Your task to perform on an android device: Play the last video I watched on Youtube Image 0: 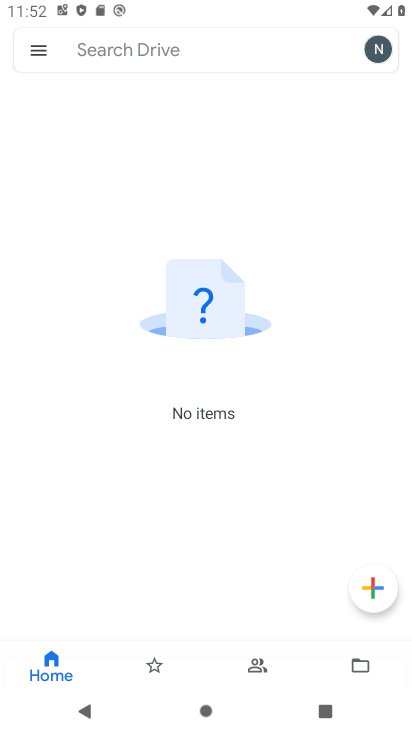
Step 0: press back button
Your task to perform on an android device: Play the last video I watched on Youtube Image 1: 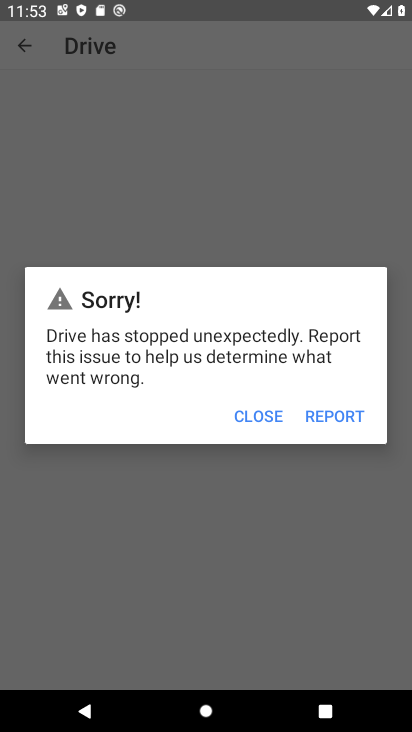
Step 1: click (263, 426)
Your task to perform on an android device: Play the last video I watched on Youtube Image 2: 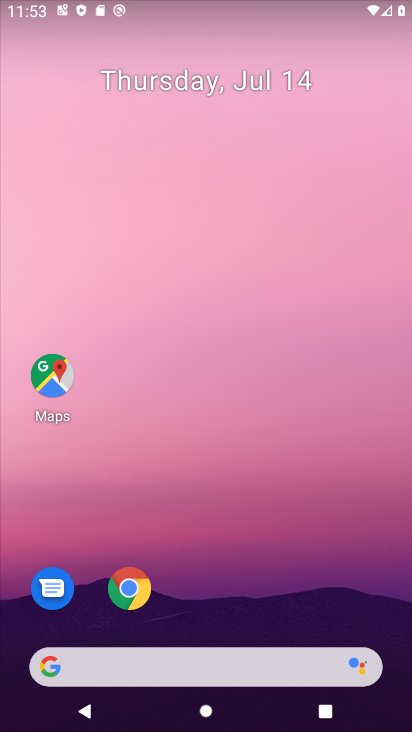
Step 2: drag from (287, 589) to (264, 14)
Your task to perform on an android device: Play the last video I watched on Youtube Image 3: 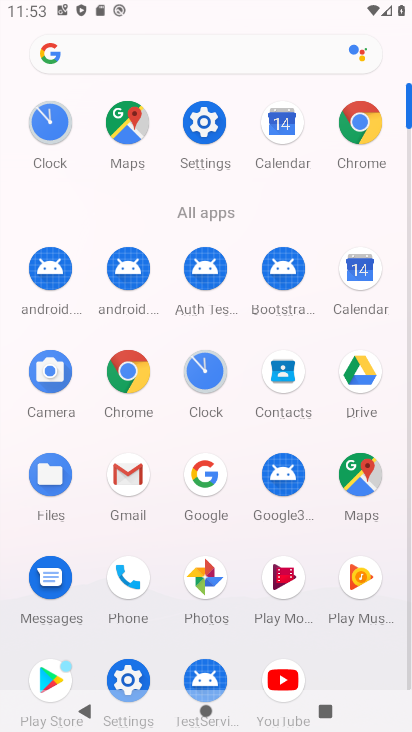
Step 3: click (276, 677)
Your task to perform on an android device: Play the last video I watched on Youtube Image 4: 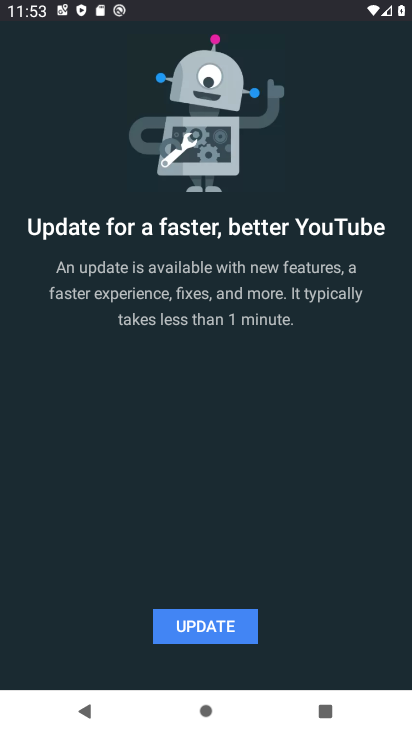
Step 4: click (208, 627)
Your task to perform on an android device: Play the last video I watched on Youtube Image 5: 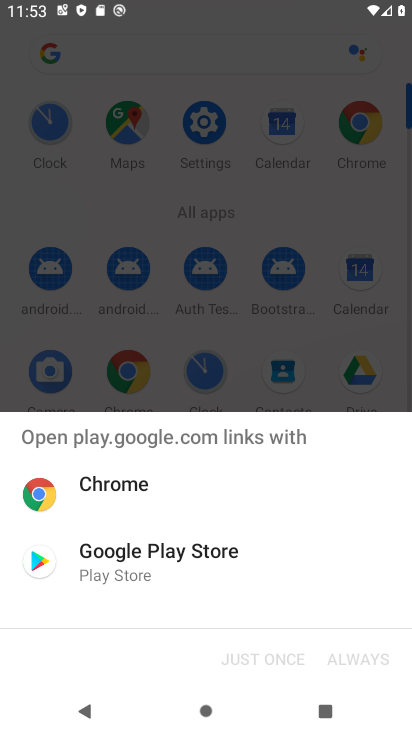
Step 5: click (57, 609)
Your task to perform on an android device: Play the last video I watched on Youtube Image 6: 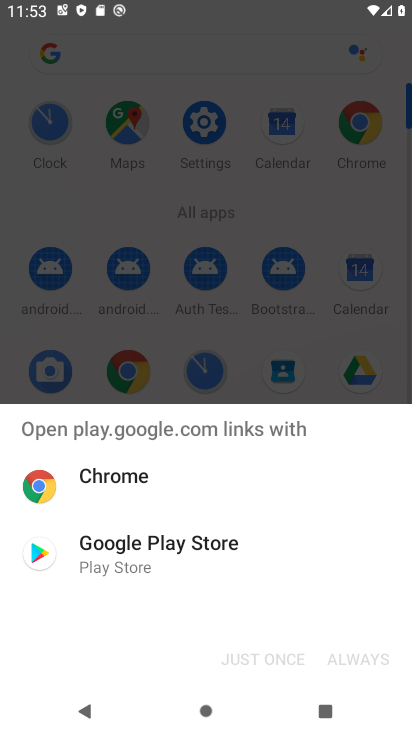
Step 6: click (156, 527)
Your task to perform on an android device: Play the last video I watched on Youtube Image 7: 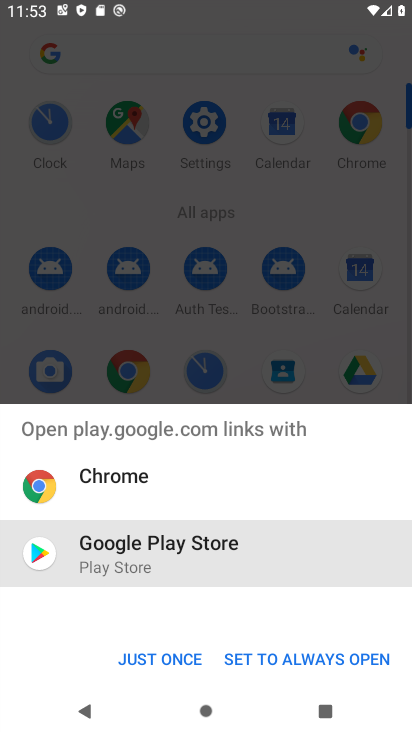
Step 7: click (157, 652)
Your task to perform on an android device: Play the last video I watched on Youtube Image 8: 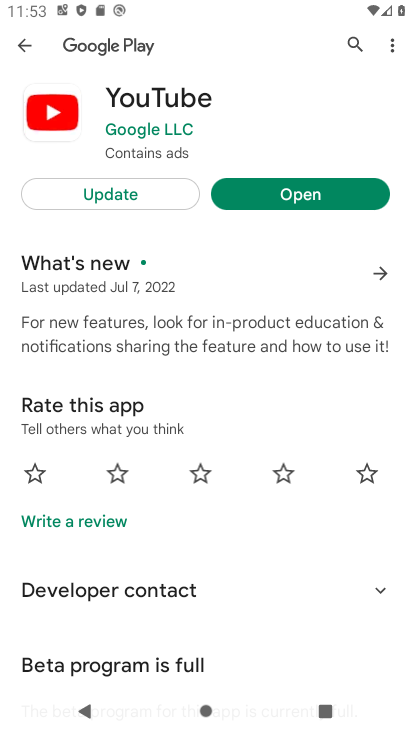
Step 8: click (134, 204)
Your task to perform on an android device: Play the last video I watched on Youtube Image 9: 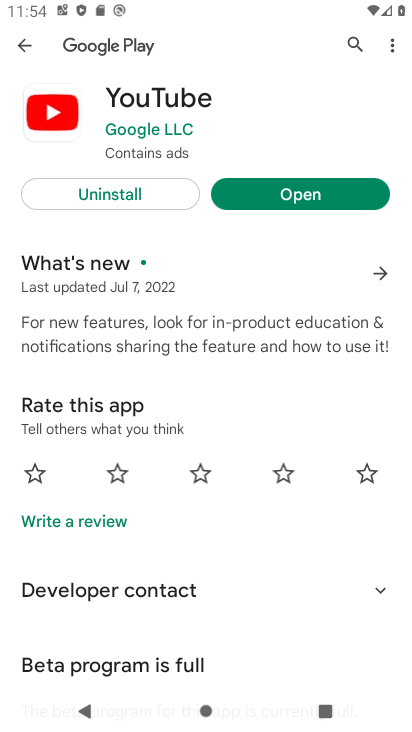
Step 9: click (278, 200)
Your task to perform on an android device: Play the last video I watched on Youtube Image 10: 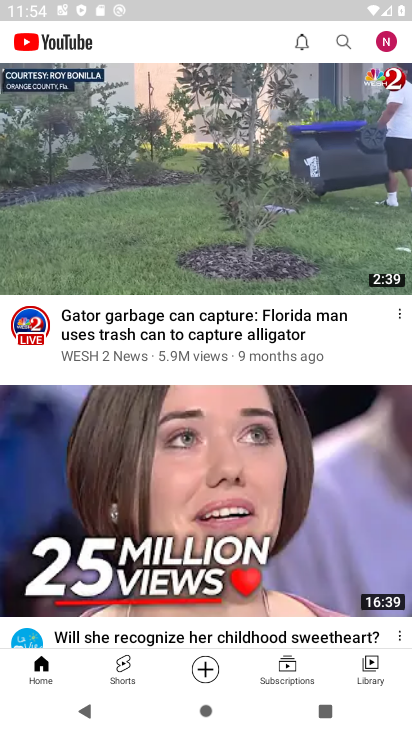
Step 10: click (373, 672)
Your task to perform on an android device: Play the last video I watched on Youtube Image 11: 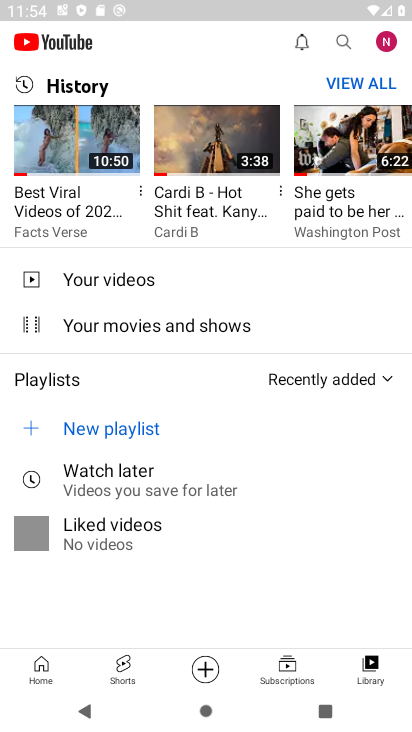
Step 11: click (60, 156)
Your task to perform on an android device: Play the last video I watched on Youtube Image 12: 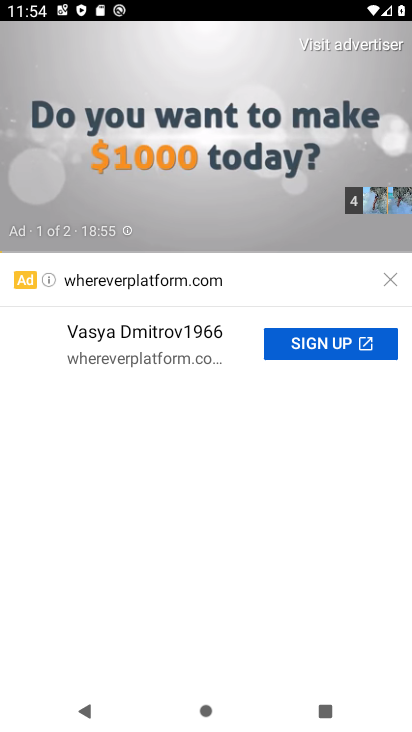
Step 12: click (192, 132)
Your task to perform on an android device: Play the last video I watched on Youtube Image 13: 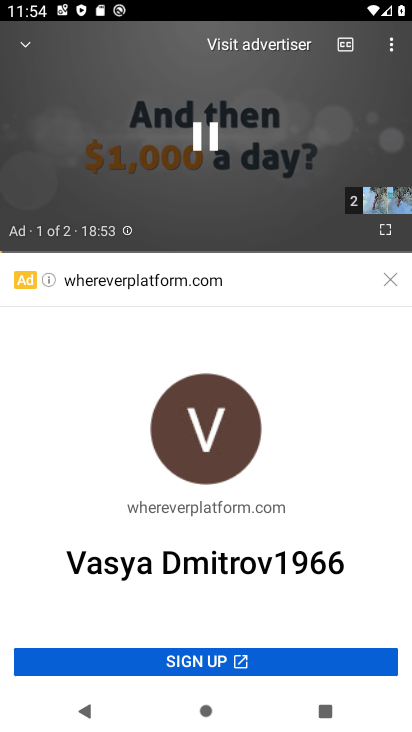
Step 13: click (210, 141)
Your task to perform on an android device: Play the last video I watched on Youtube Image 14: 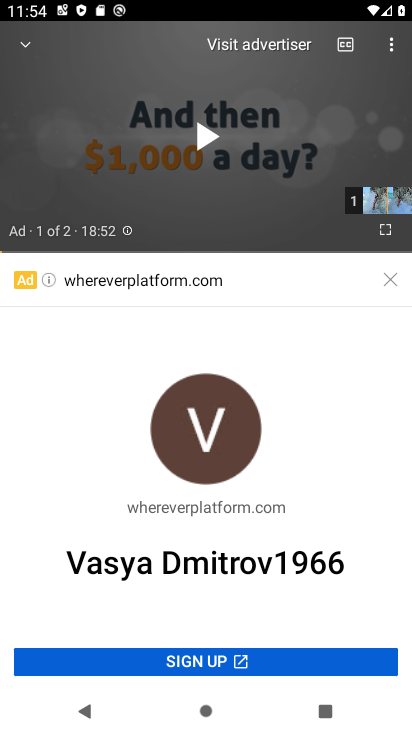
Step 14: task complete